Your task to perform on an android device: Open the web browser Image 0: 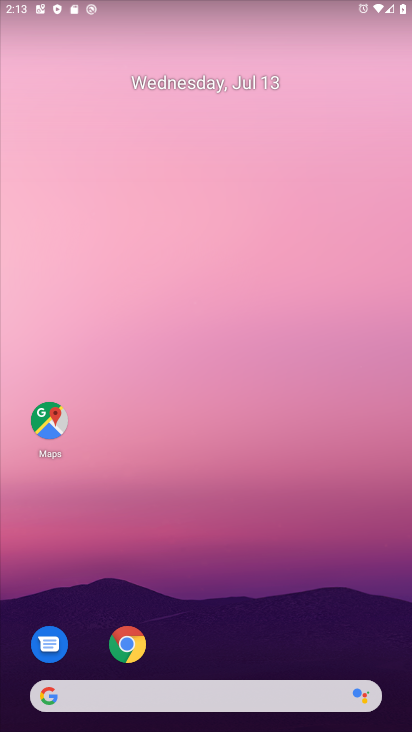
Step 0: click (189, 687)
Your task to perform on an android device: Open the web browser Image 1: 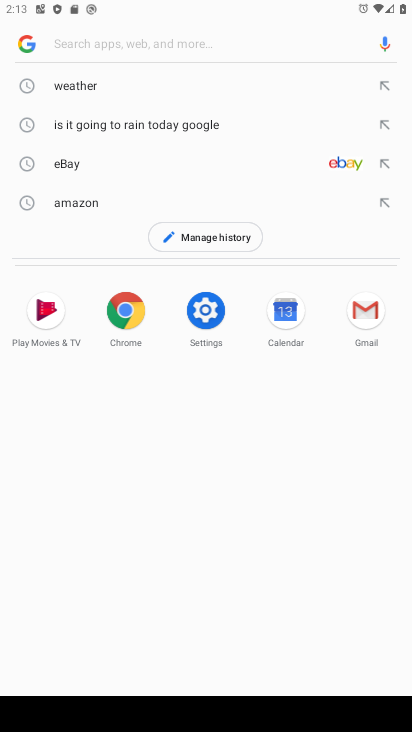
Step 1: task complete